Your task to perform on an android device: Show me popular games on the Play Store Image 0: 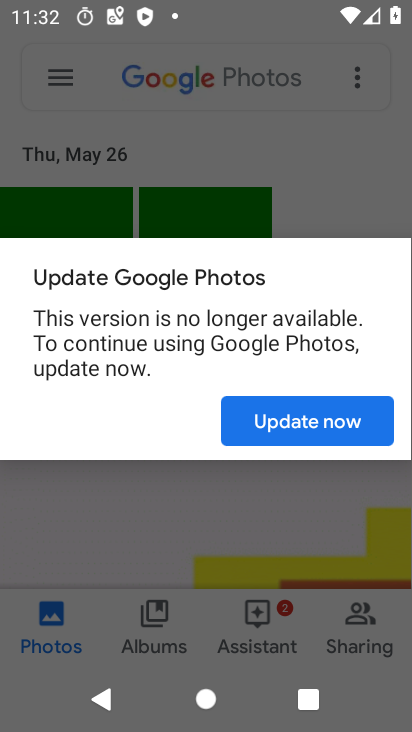
Step 0: press home button
Your task to perform on an android device: Show me popular games on the Play Store Image 1: 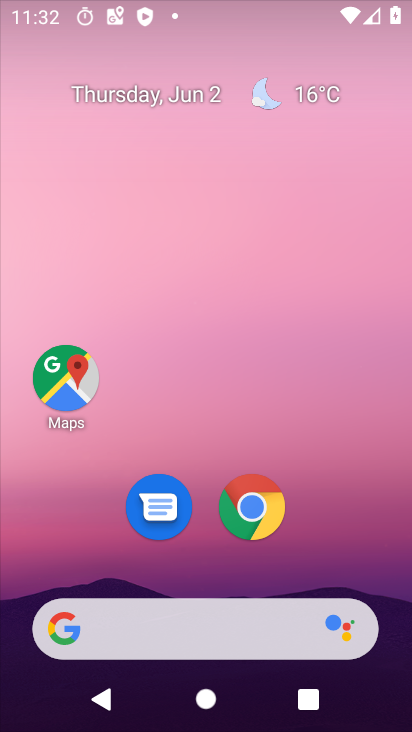
Step 1: drag from (391, 657) to (291, 18)
Your task to perform on an android device: Show me popular games on the Play Store Image 2: 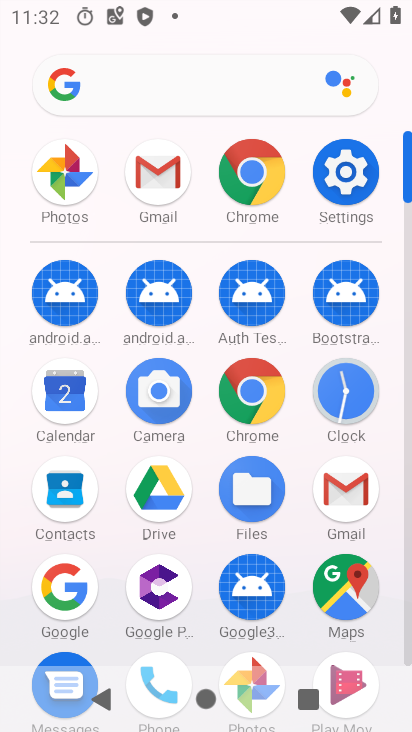
Step 2: drag from (192, 633) to (194, 95)
Your task to perform on an android device: Show me popular games on the Play Store Image 3: 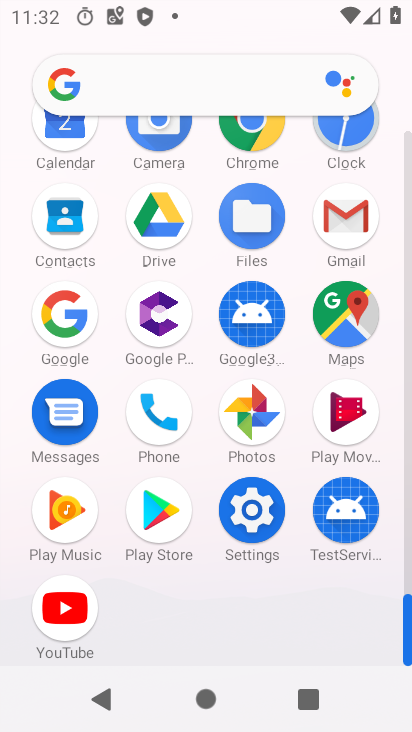
Step 3: click (156, 515)
Your task to perform on an android device: Show me popular games on the Play Store Image 4: 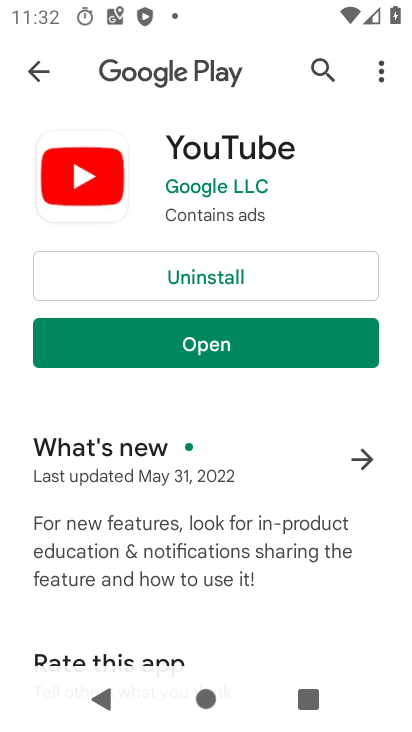
Step 4: press back button
Your task to perform on an android device: Show me popular games on the Play Store Image 5: 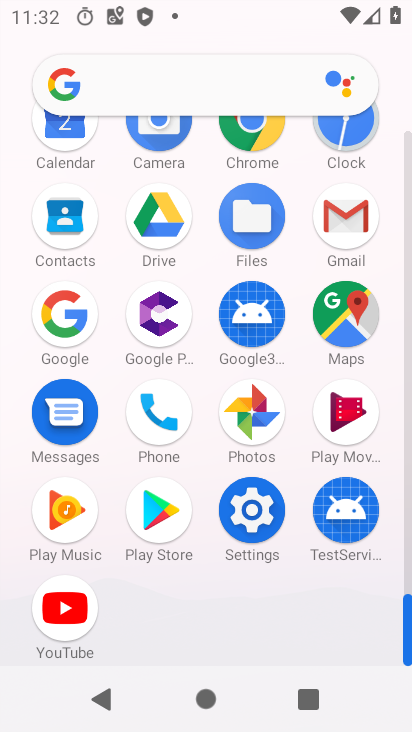
Step 5: click (163, 511)
Your task to perform on an android device: Show me popular games on the Play Store Image 6: 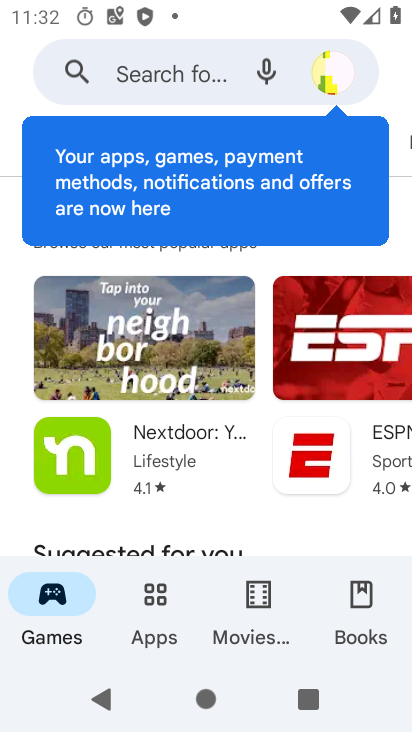
Step 6: drag from (184, 522) to (199, 204)
Your task to perform on an android device: Show me popular games on the Play Store Image 7: 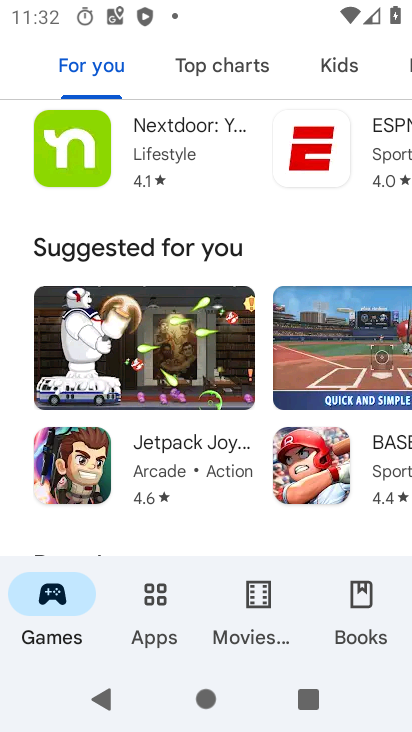
Step 7: drag from (229, 385) to (224, 134)
Your task to perform on an android device: Show me popular games on the Play Store Image 8: 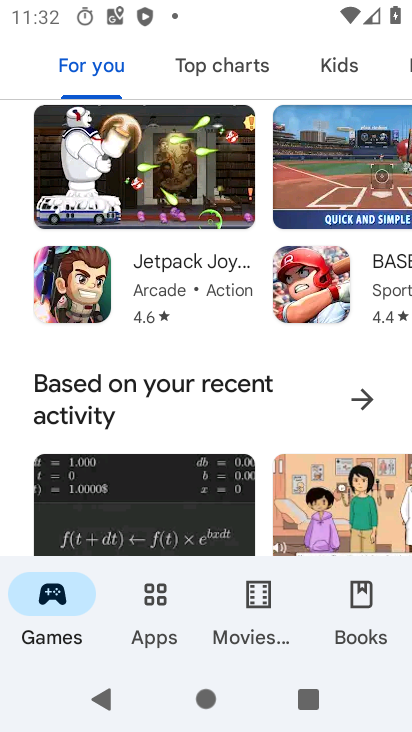
Step 8: drag from (256, 435) to (238, 168)
Your task to perform on an android device: Show me popular games on the Play Store Image 9: 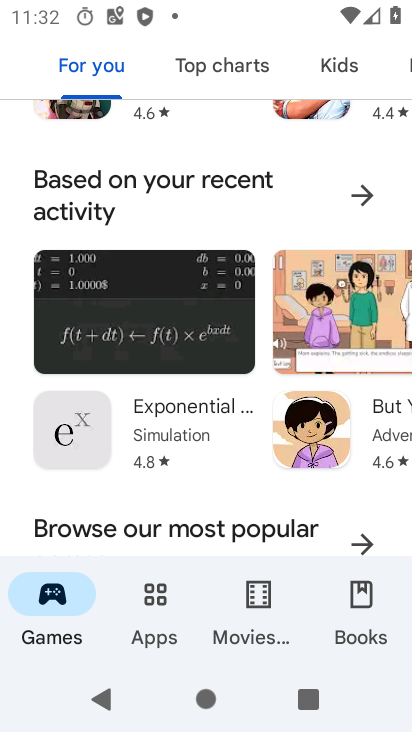
Step 9: click (221, 49)
Your task to perform on an android device: Show me popular games on the Play Store Image 10: 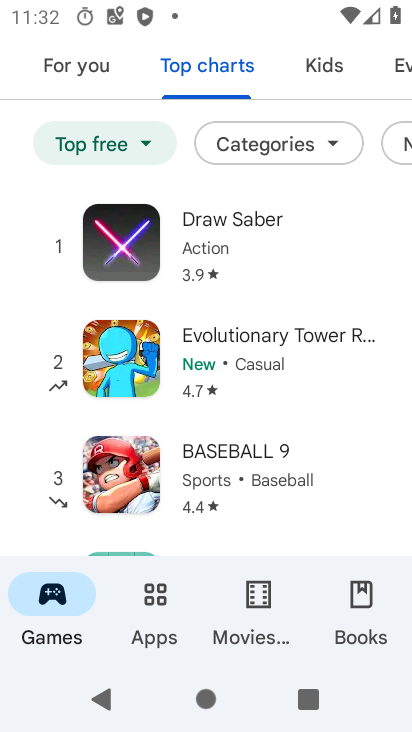
Step 10: drag from (209, 491) to (219, 283)
Your task to perform on an android device: Show me popular games on the Play Store Image 11: 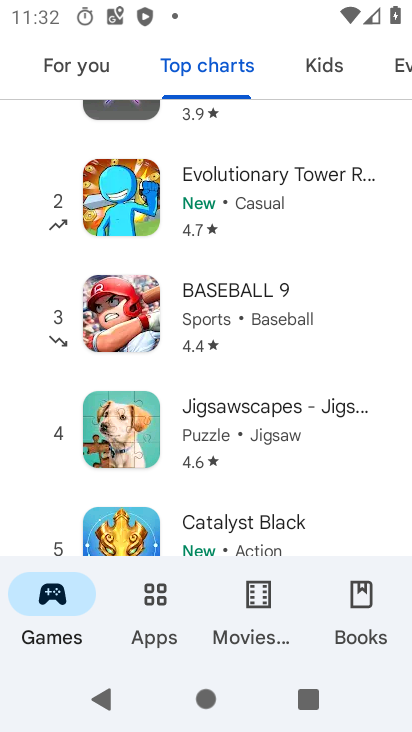
Step 11: press back button
Your task to perform on an android device: Show me popular games on the Play Store Image 12: 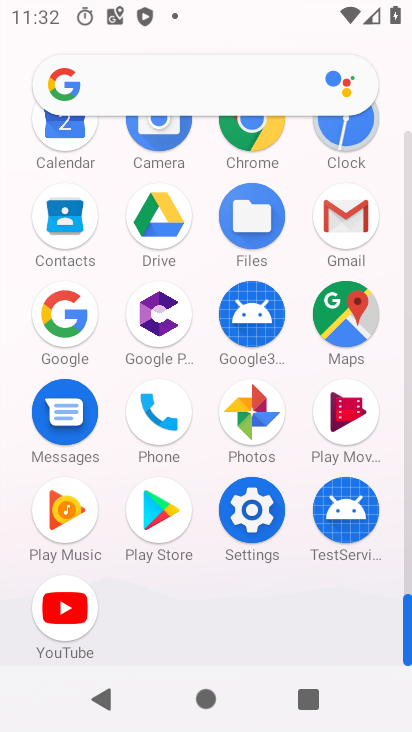
Step 12: click (170, 534)
Your task to perform on an android device: Show me popular games on the Play Store Image 13: 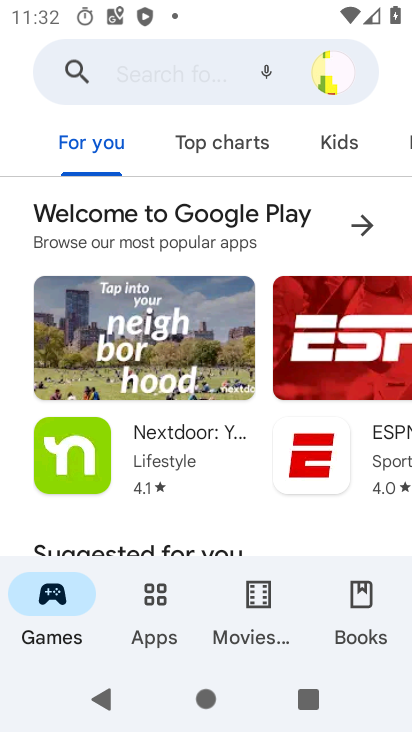
Step 13: task complete